Your task to perform on an android device: set the timer Image 0: 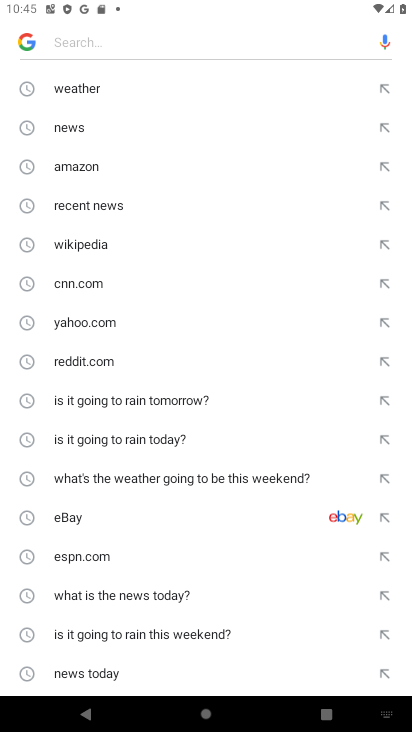
Step 0: press home button
Your task to perform on an android device: set the timer Image 1: 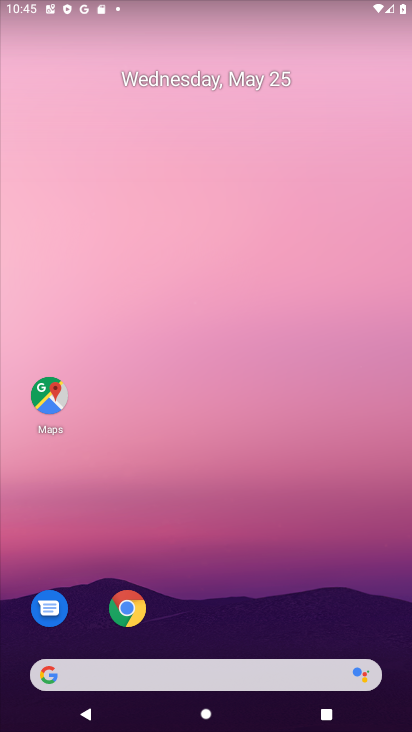
Step 1: drag from (292, 633) to (303, 0)
Your task to perform on an android device: set the timer Image 2: 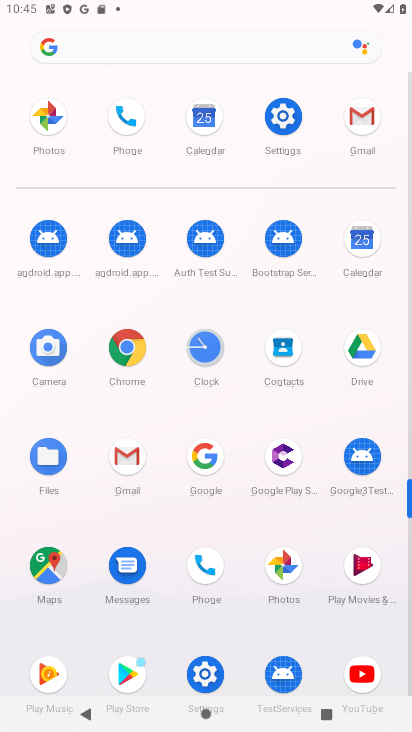
Step 2: click (200, 350)
Your task to perform on an android device: set the timer Image 3: 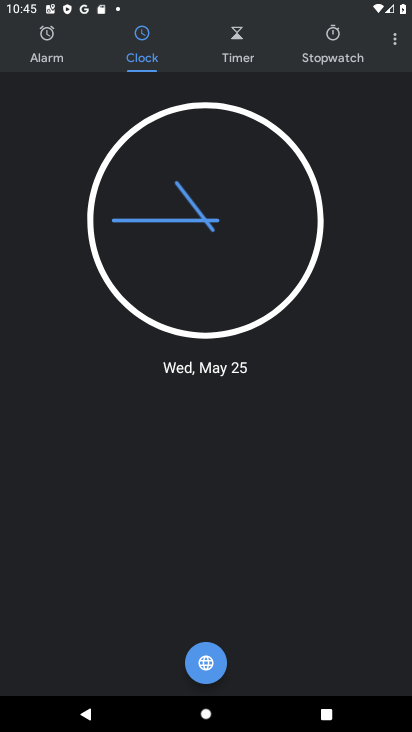
Step 3: click (255, 56)
Your task to perform on an android device: set the timer Image 4: 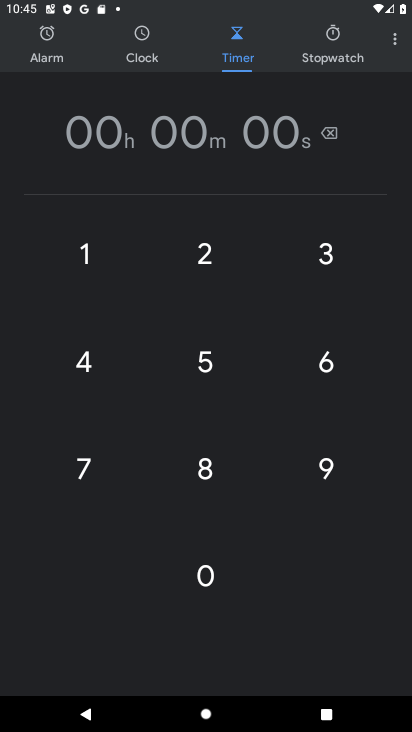
Step 4: click (218, 373)
Your task to perform on an android device: set the timer Image 5: 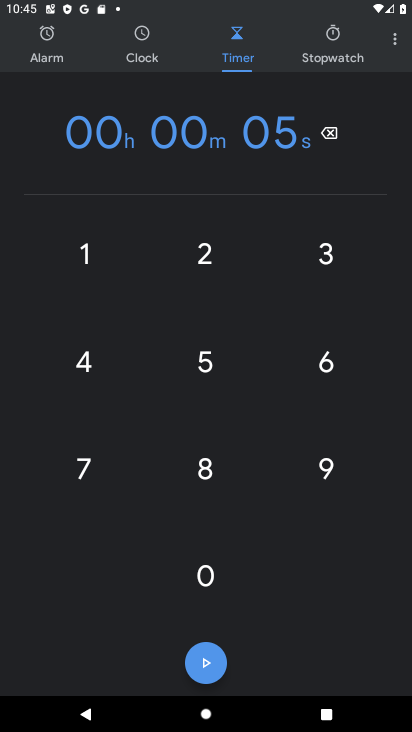
Step 5: click (214, 567)
Your task to perform on an android device: set the timer Image 6: 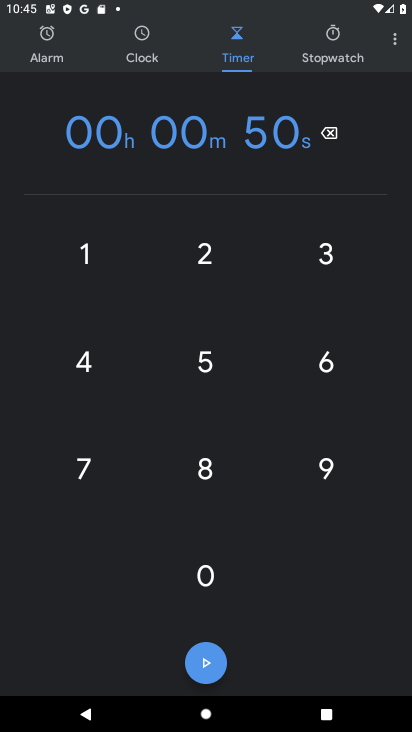
Step 6: click (205, 681)
Your task to perform on an android device: set the timer Image 7: 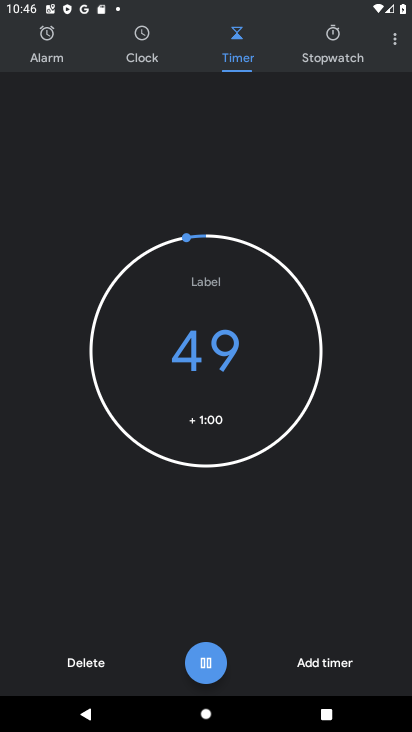
Step 7: task complete